Your task to perform on an android device: Go to Reddit.com Image 0: 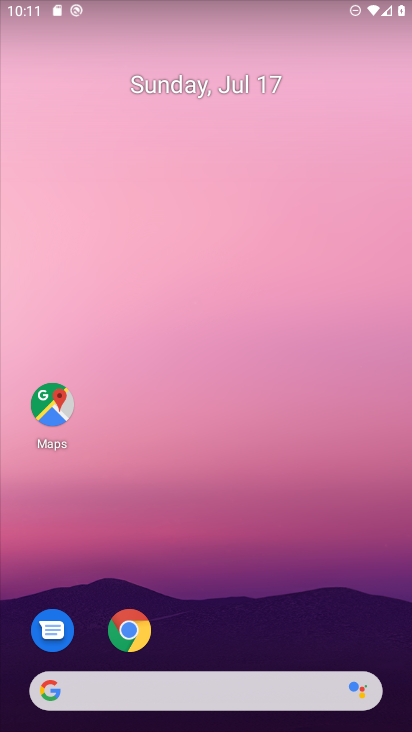
Step 0: drag from (218, 635) to (173, 296)
Your task to perform on an android device: Go to Reddit.com Image 1: 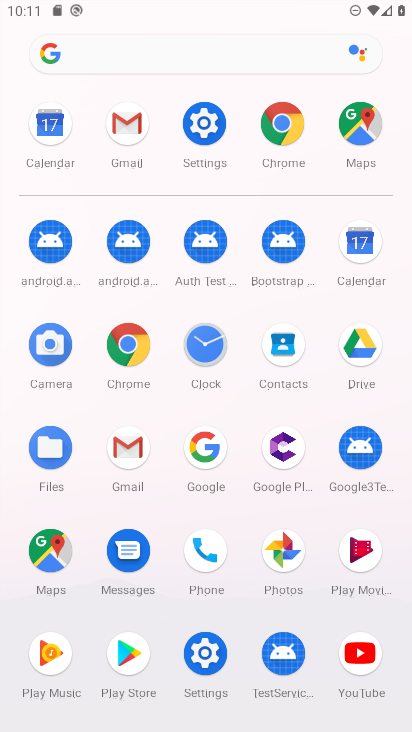
Step 1: click (261, 117)
Your task to perform on an android device: Go to Reddit.com Image 2: 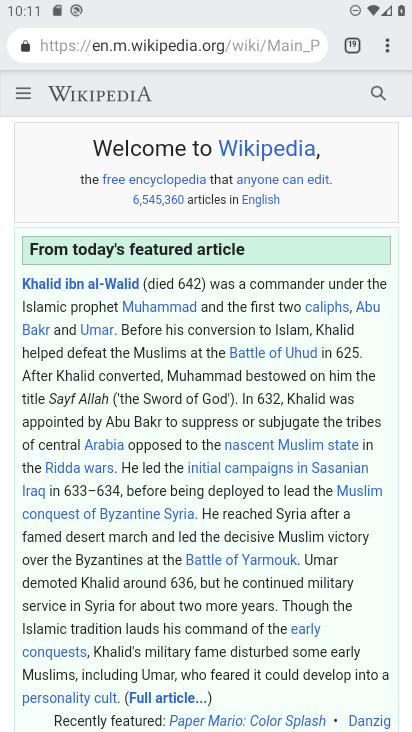
Step 2: click (392, 38)
Your task to perform on an android device: Go to Reddit.com Image 3: 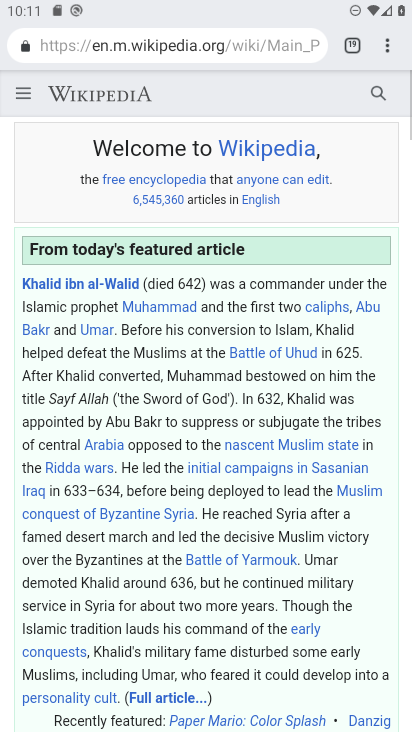
Step 3: click (390, 38)
Your task to perform on an android device: Go to Reddit.com Image 4: 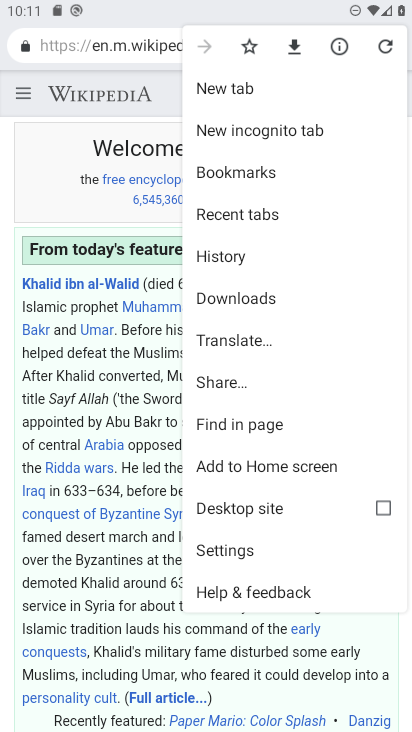
Step 4: click (232, 82)
Your task to perform on an android device: Go to Reddit.com Image 5: 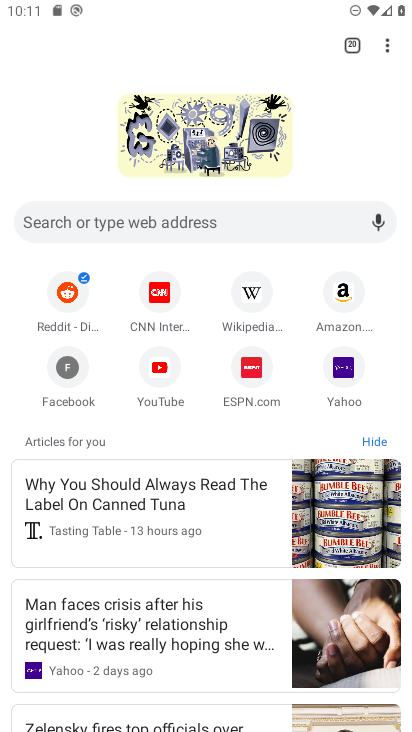
Step 5: click (62, 299)
Your task to perform on an android device: Go to Reddit.com Image 6: 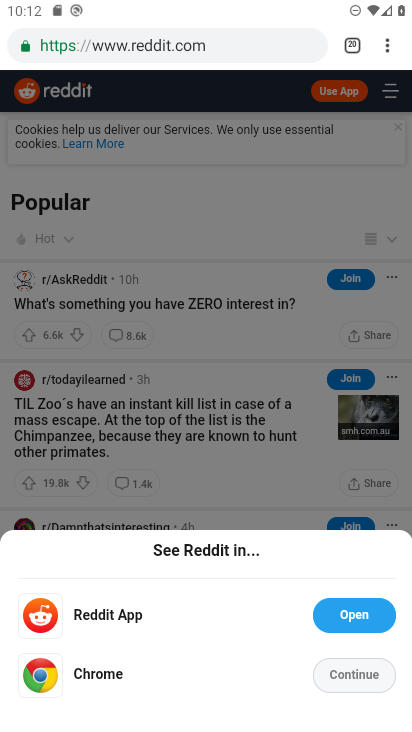
Step 6: task complete